Your task to perform on an android device: Toggle the flashlight Image 0: 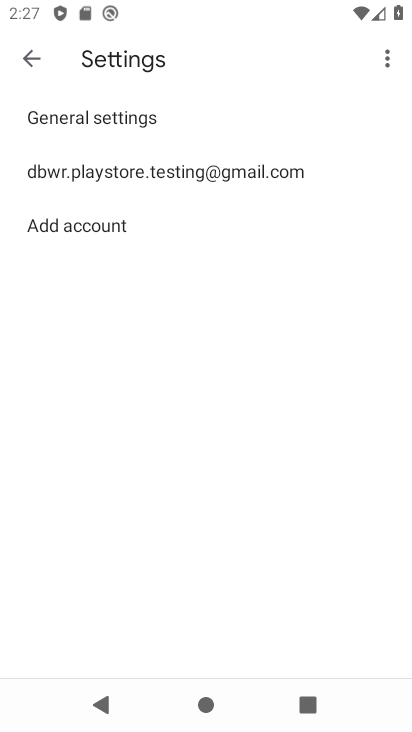
Step 0: press home button
Your task to perform on an android device: Toggle the flashlight Image 1: 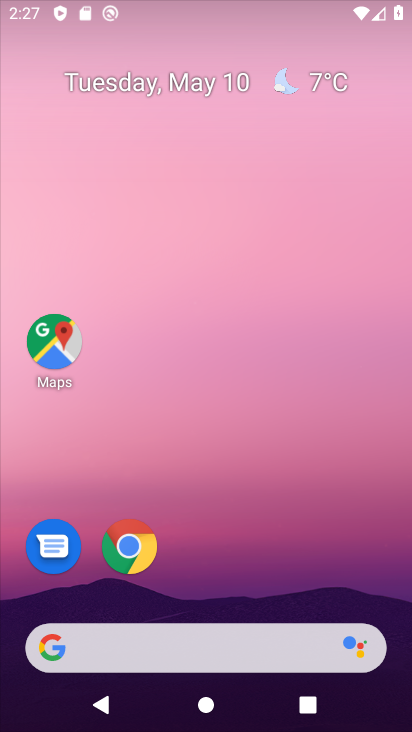
Step 1: drag from (253, 497) to (248, 112)
Your task to perform on an android device: Toggle the flashlight Image 2: 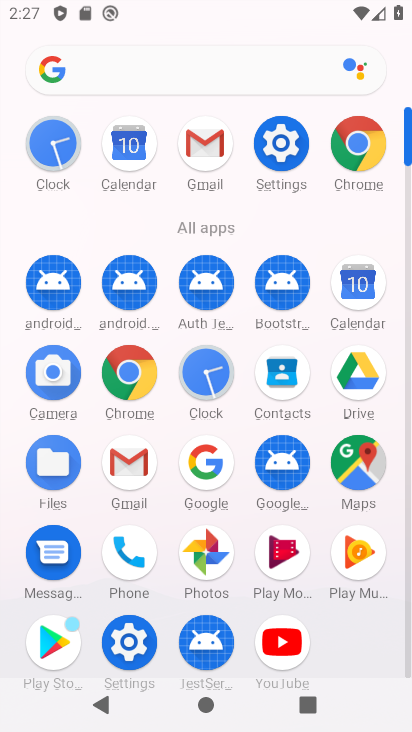
Step 2: click (290, 129)
Your task to perform on an android device: Toggle the flashlight Image 3: 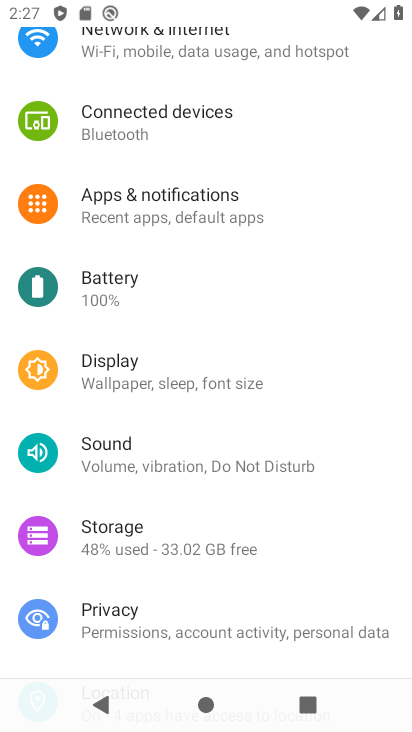
Step 3: drag from (256, 158) to (257, 495)
Your task to perform on an android device: Toggle the flashlight Image 4: 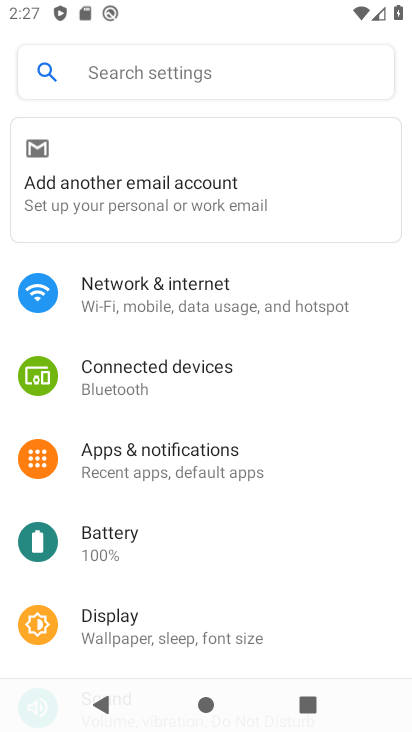
Step 4: click (199, 88)
Your task to perform on an android device: Toggle the flashlight Image 5: 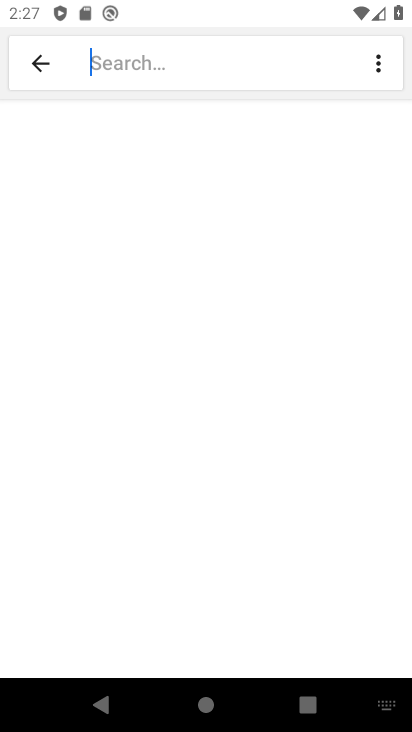
Step 5: type "flashlight"
Your task to perform on an android device: Toggle the flashlight Image 6: 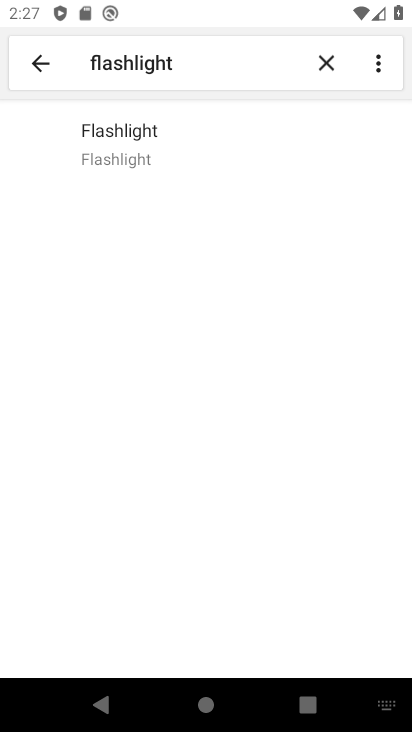
Step 6: click (128, 146)
Your task to perform on an android device: Toggle the flashlight Image 7: 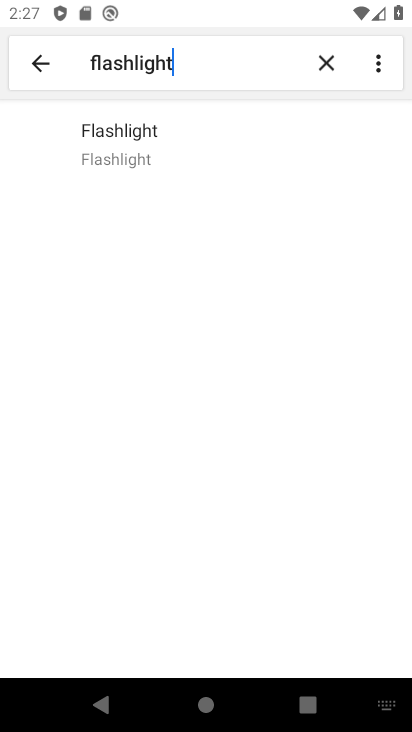
Step 7: task complete